Your task to perform on an android device: turn pop-ups on in chrome Image 0: 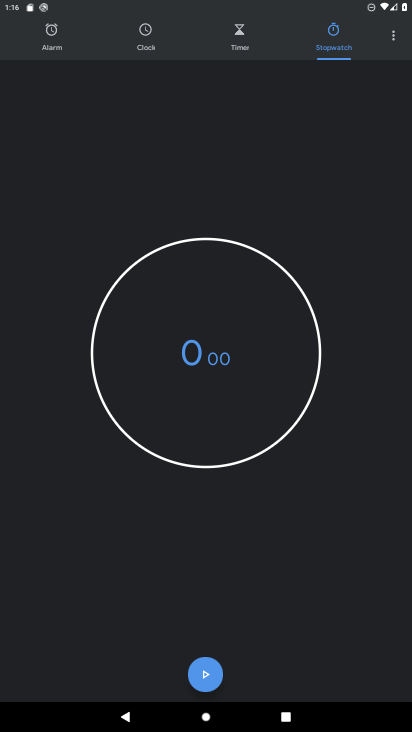
Step 0: press home button
Your task to perform on an android device: turn pop-ups on in chrome Image 1: 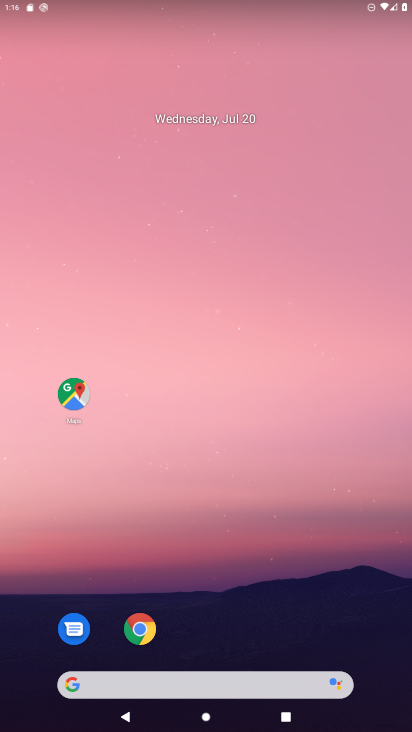
Step 1: click (135, 622)
Your task to perform on an android device: turn pop-ups on in chrome Image 2: 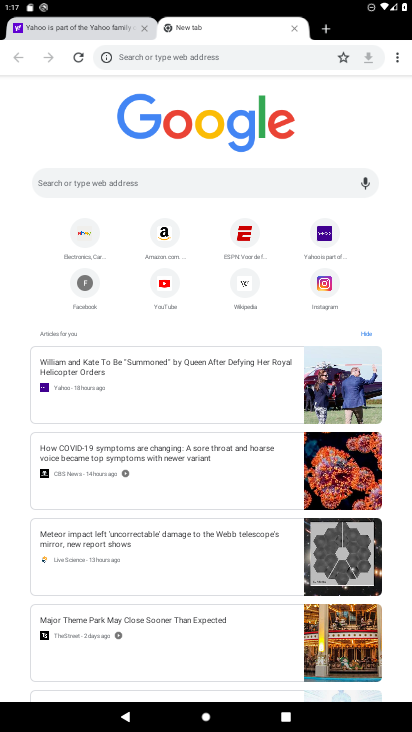
Step 2: click (396, 54)
Your task to perform on an android device: turn pop-ups on in chrome Image 3: 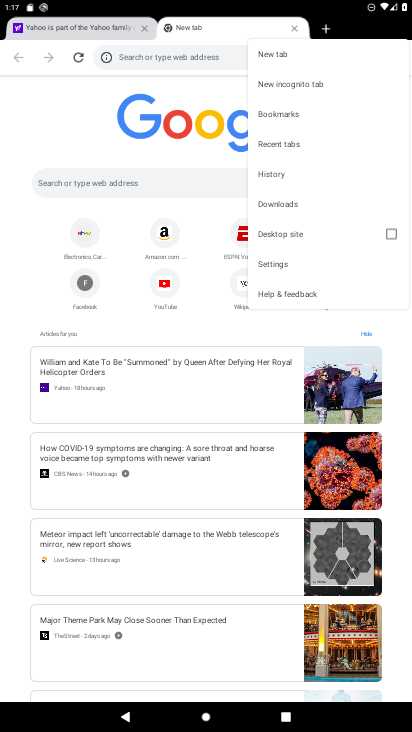
Step 3: click (282, 267)
Your task to perform on an android device: turn pop-ups on in chrome Image 4: 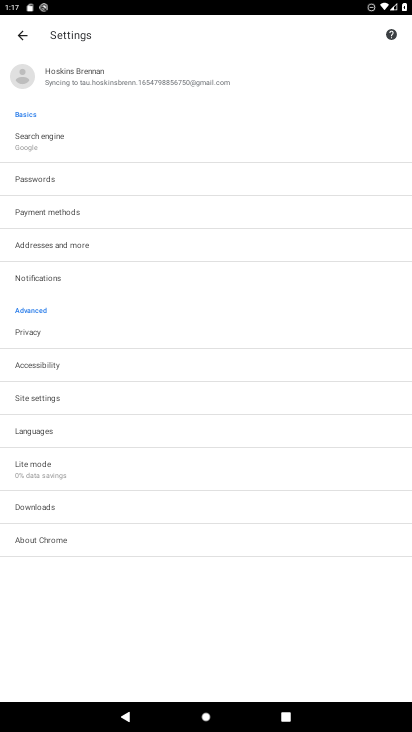
Step 4: click (55, 402)
Your task to perform on an android device: turn pop-ups on in chrome Image 5: 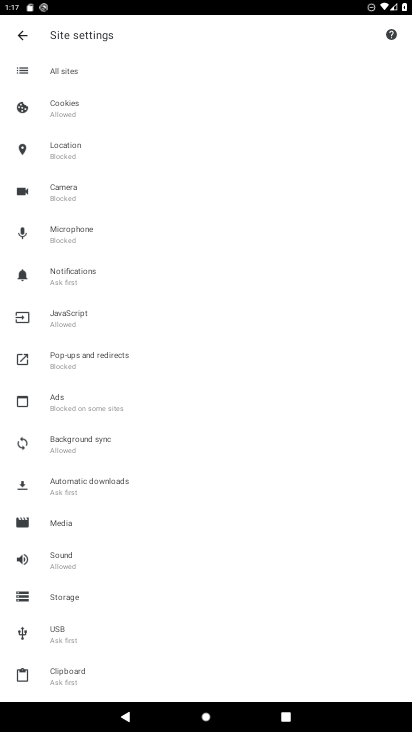
Step 5: click (71, 358)
Your task to perform on an android device: turn pop-ups on in chrome Image 6: 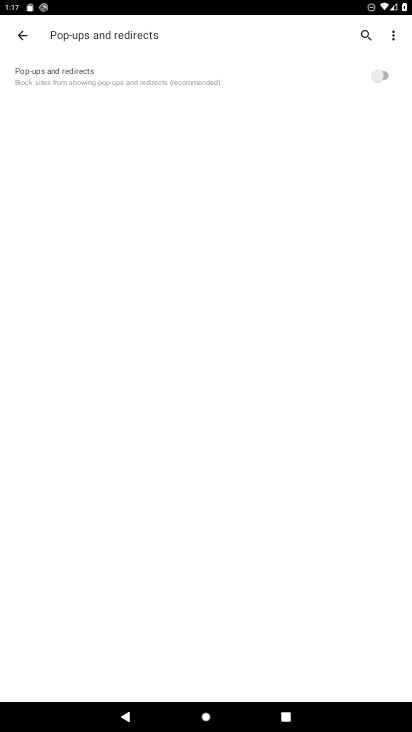
Step 6: click (382, 73)
Your task to perform on an android device: turn pop-ups on in chrome Image 7: 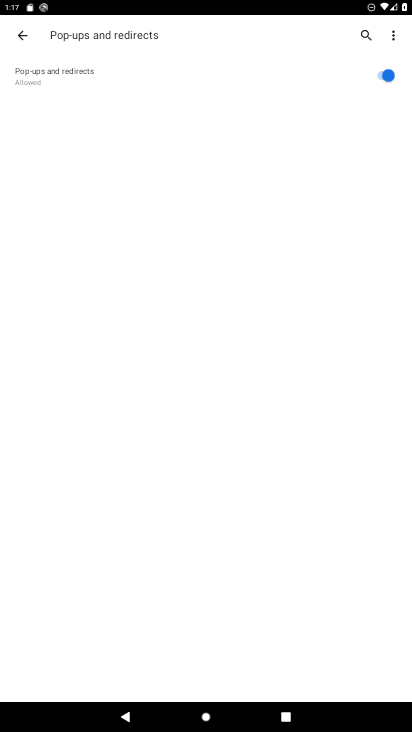
Step 7: task complete